Your task to perform on an android device: Search for Mexican restaurants on Maps Image 0: 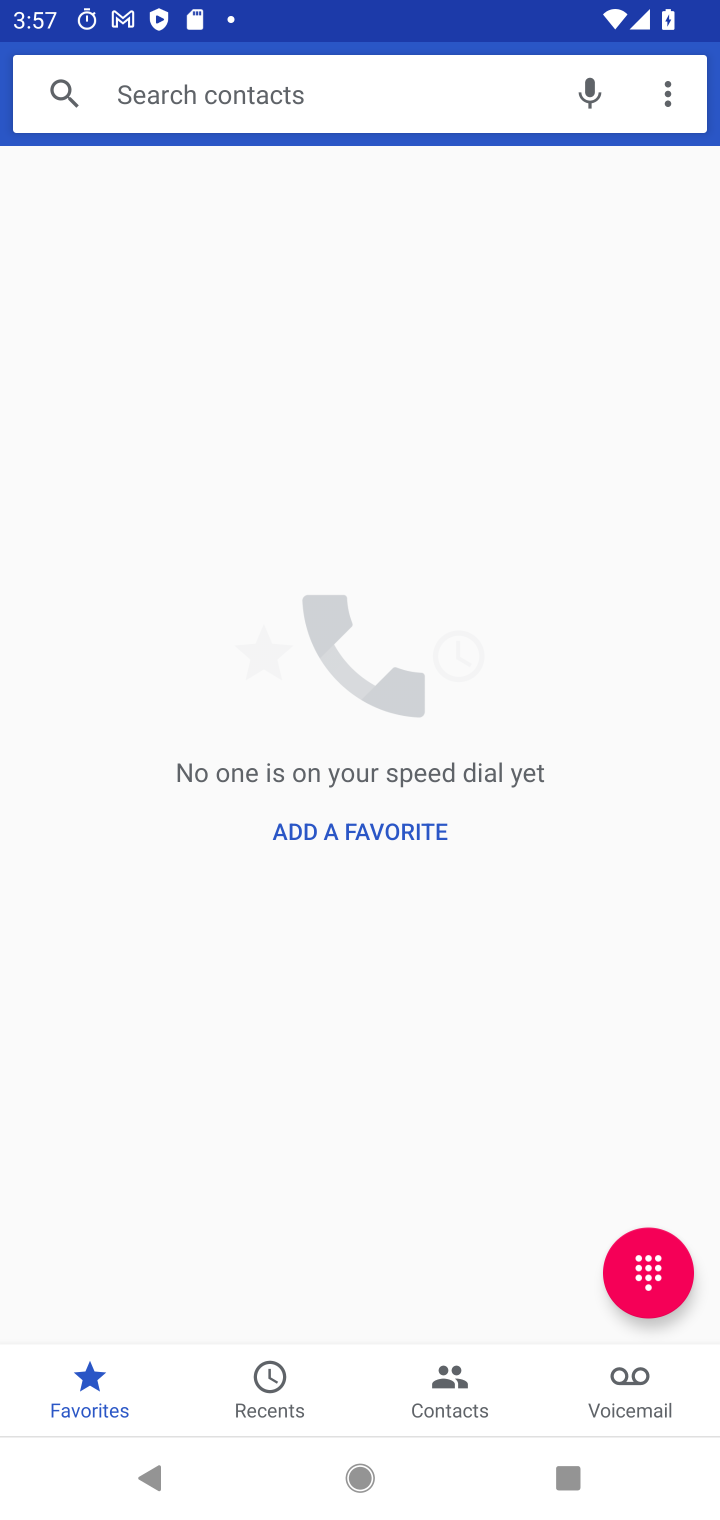
Step 0: press home button
Your task to perform on an android device: Search for Mexican restaurants on Maps Image 1: 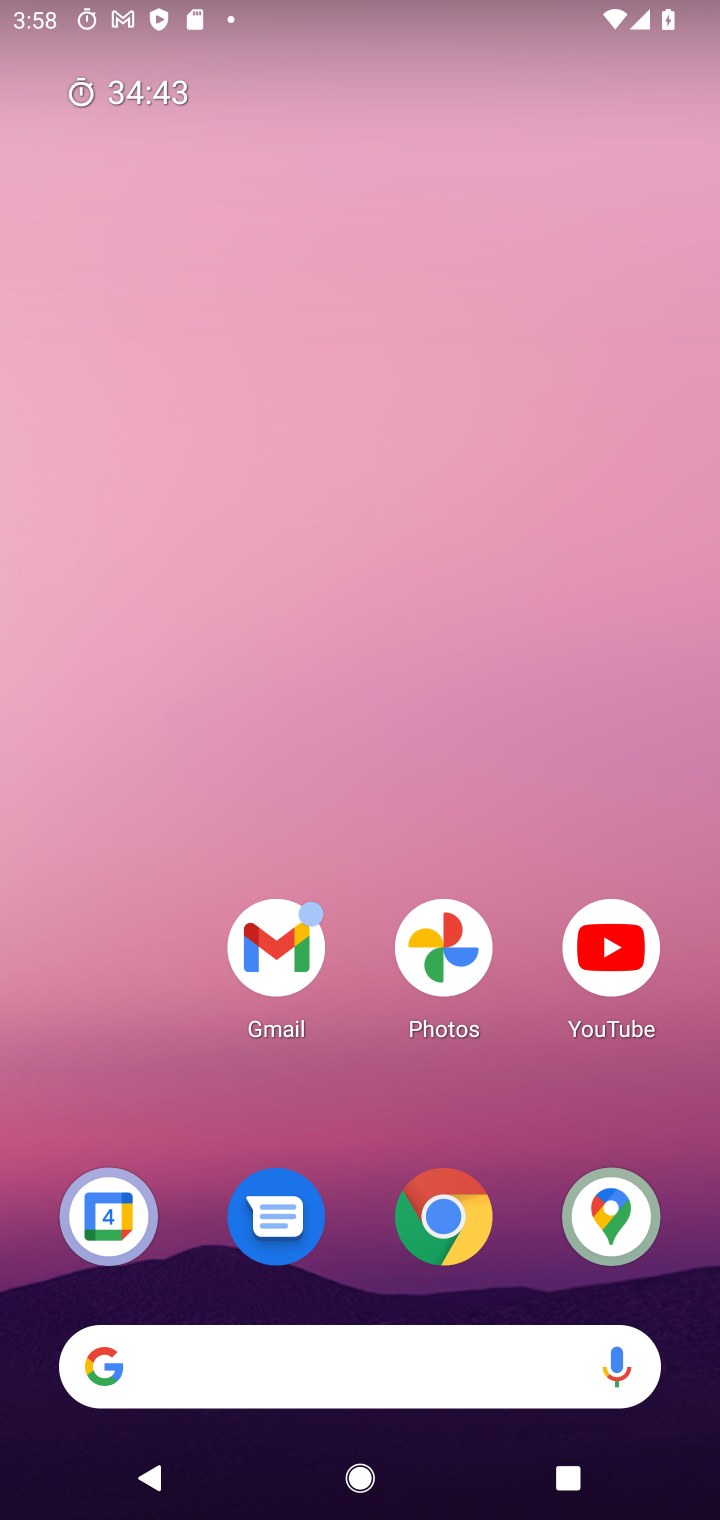
Step 1: drag from (229, 810) to (598, 68)
Your task to perform on an android device: Search for Mexican restaurants on Maps Image 2: 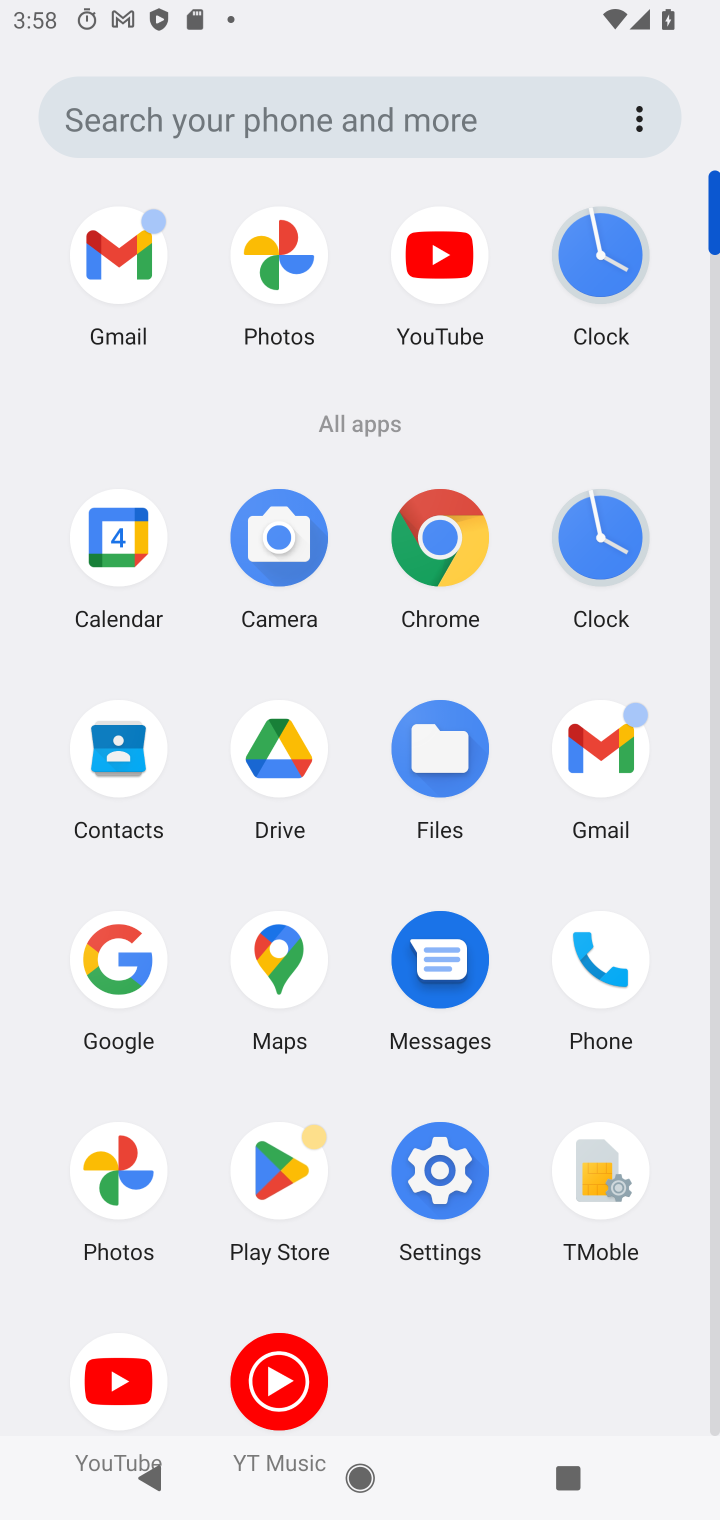
Step 2: click (280, 963)
Your task to perform on an android device: Search for Mexican restaurants on Maps Image 3: 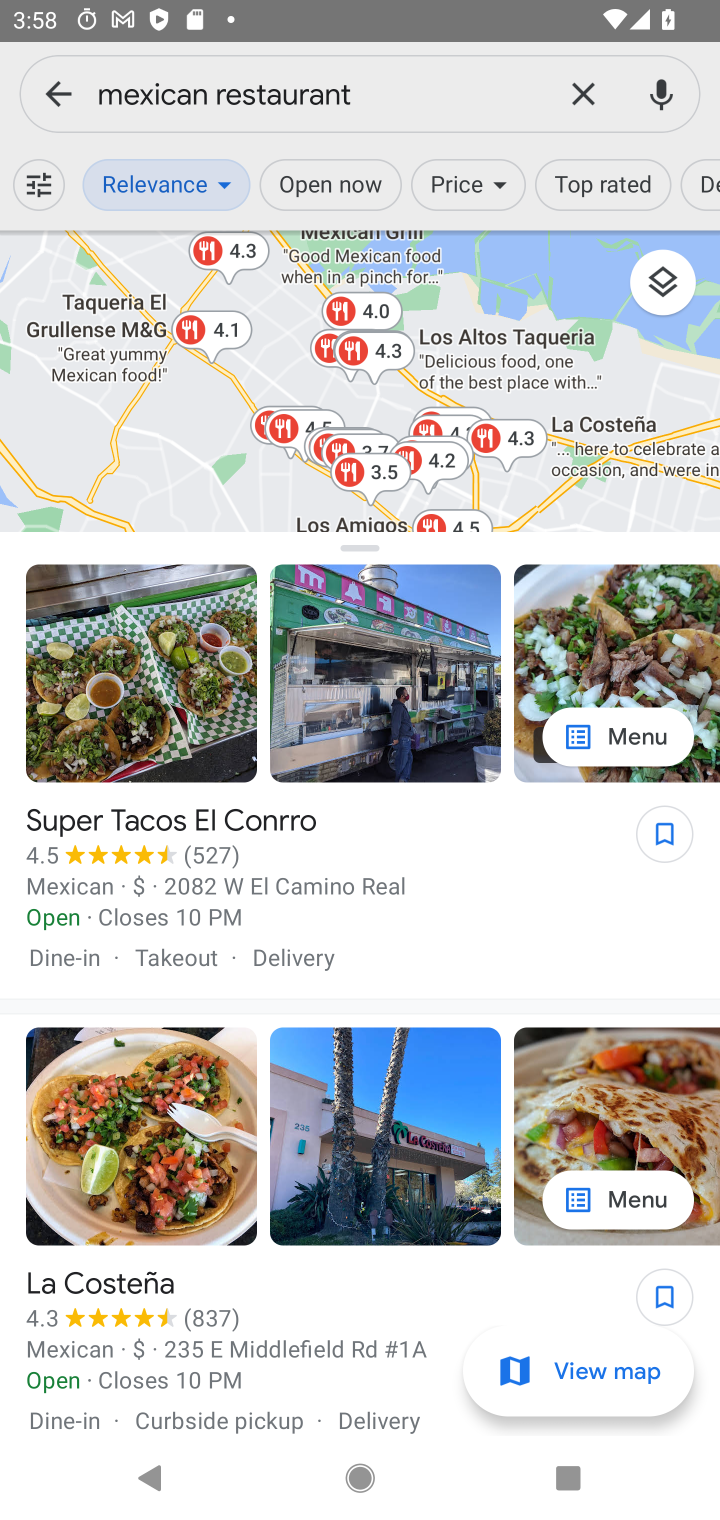
Step 3: task complete